Your task to perform on an android device: turn off notifications in google photos Image 0: 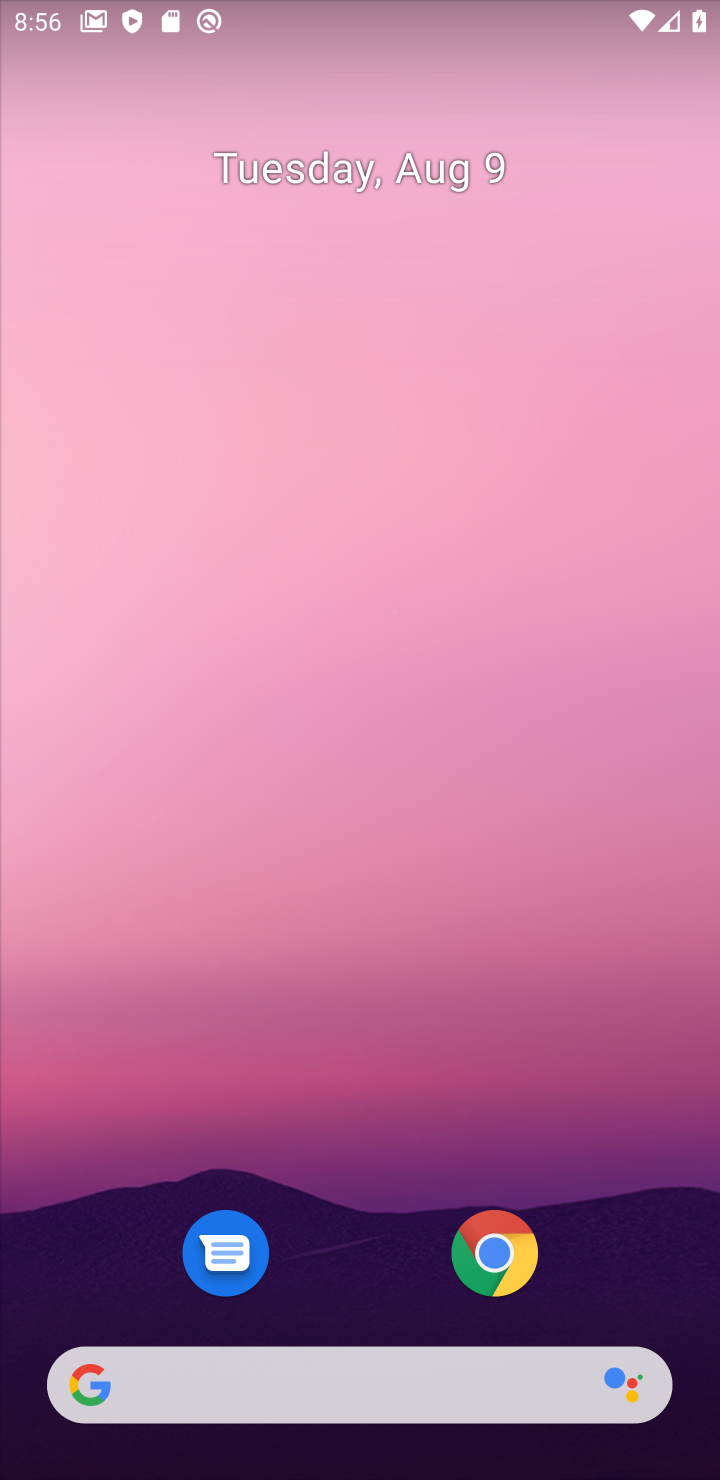
Step 0: drag from (362, 1234) to (557, 357)
Your task to perform on an android device: turn off notifications in google photos Image 1: 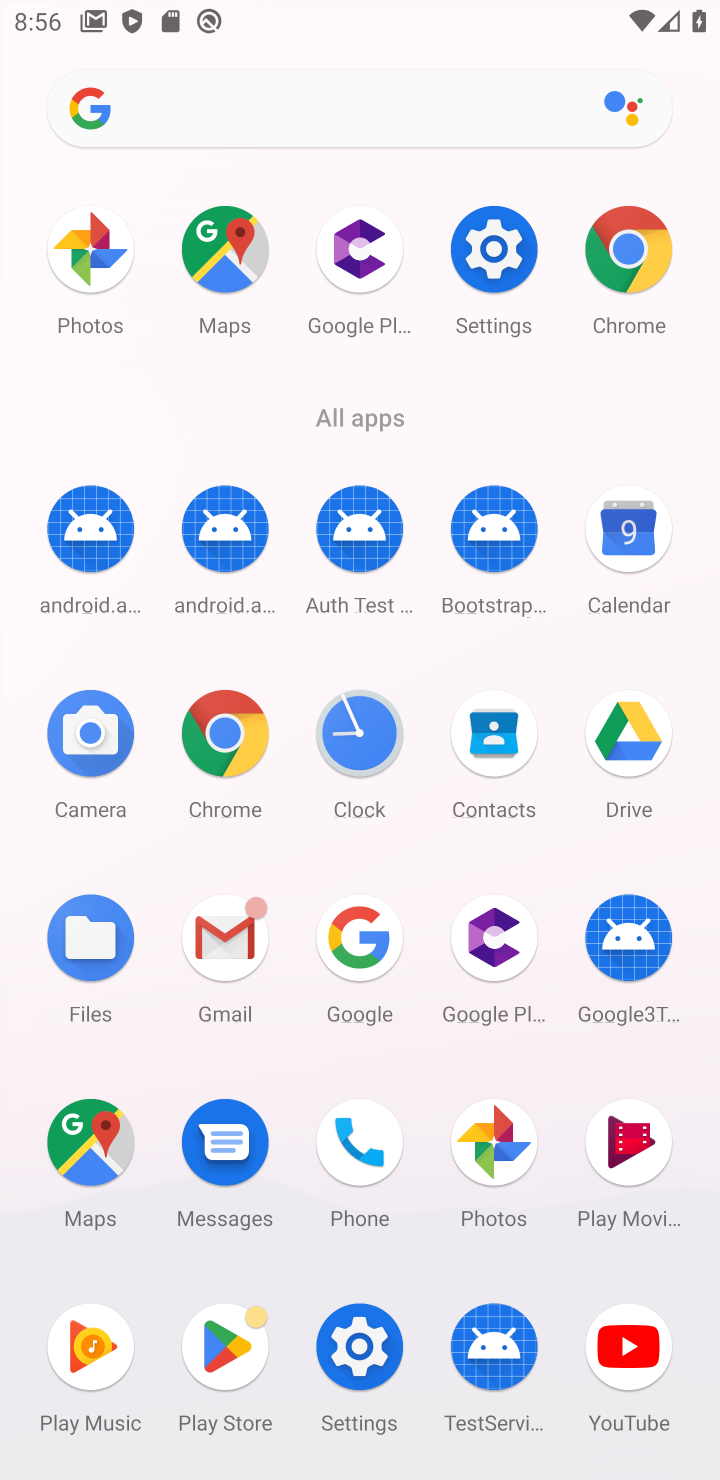
Step 1: click (505, 1139)
Your task to perform on an android device: turn off notifications in google photos Image 2: 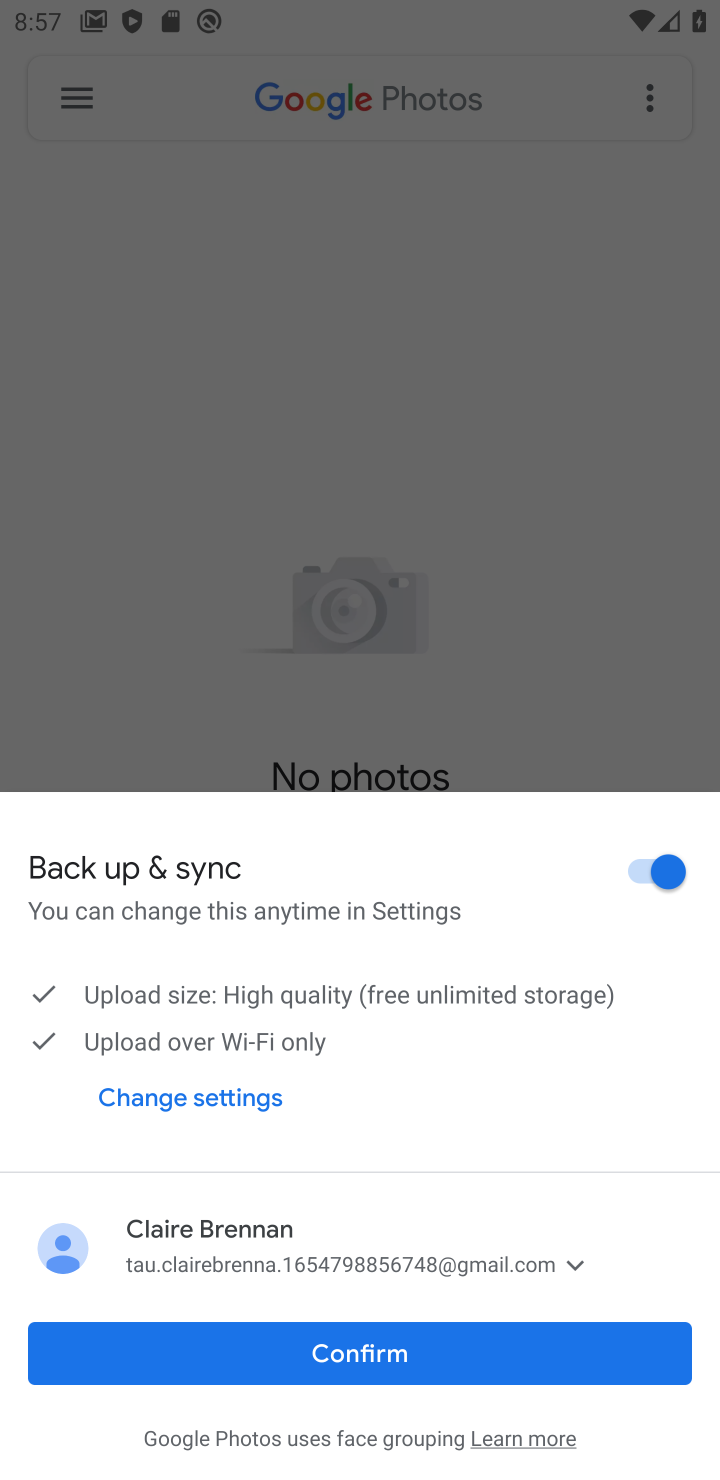
Step 2: click (401, 1347)
Your task to perform on an android device: turn off notifications in google photos Image 3: 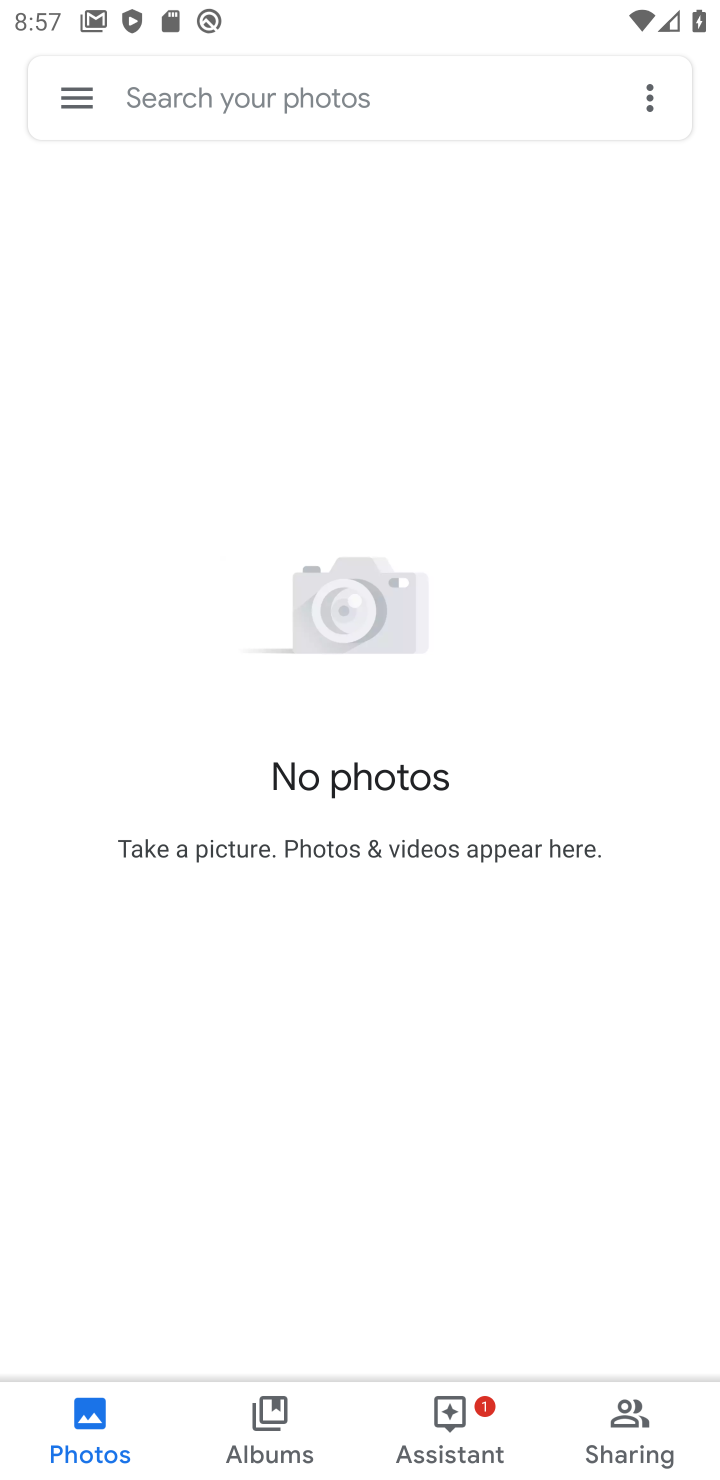
Step 3: click (76, 86)
Your task to perform on an android device: turn off notifications in google photos Image 4: 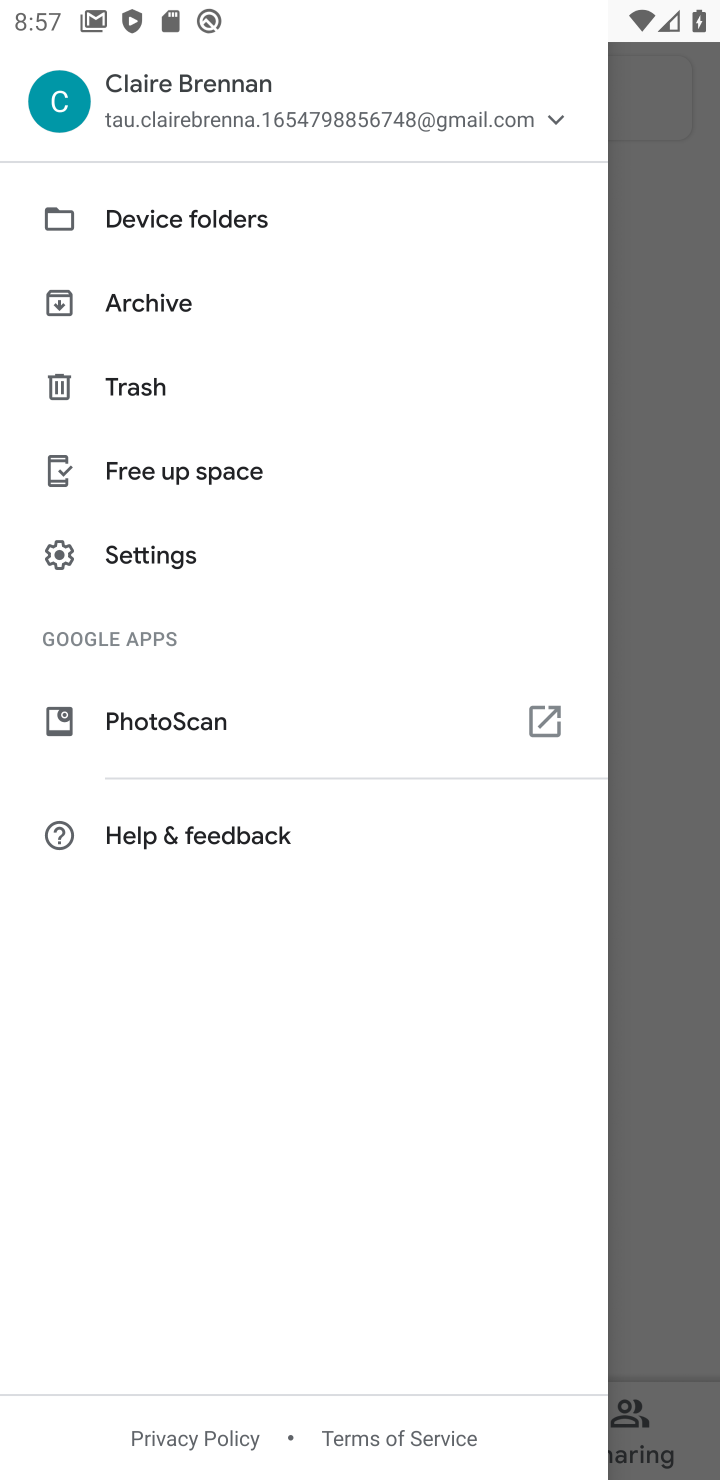
Step 4: click (142, 577)
Your task to perform on an android device: turn off notifications in google photos Image 5: 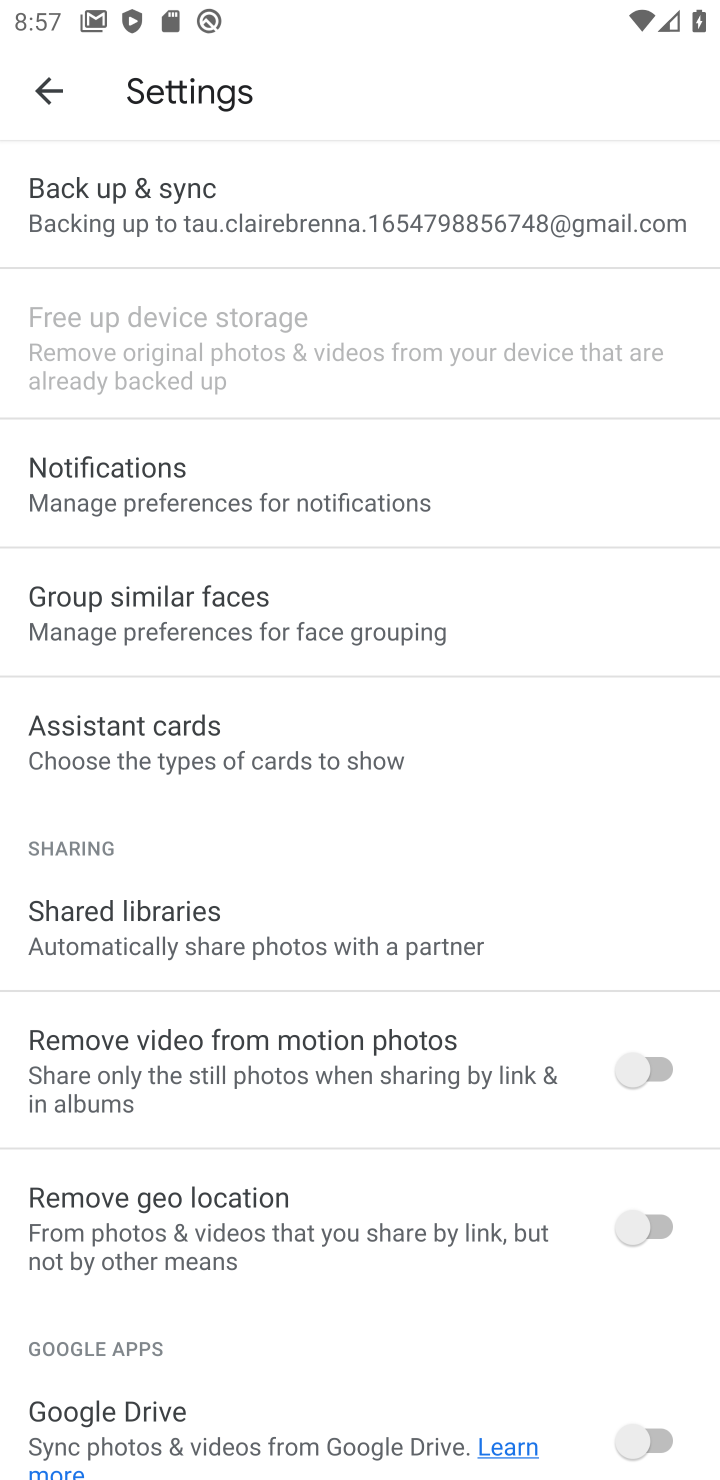
Step 5: click (242, 482)
Your task to perform on an android device: turn off notifications in google photos Image 6: 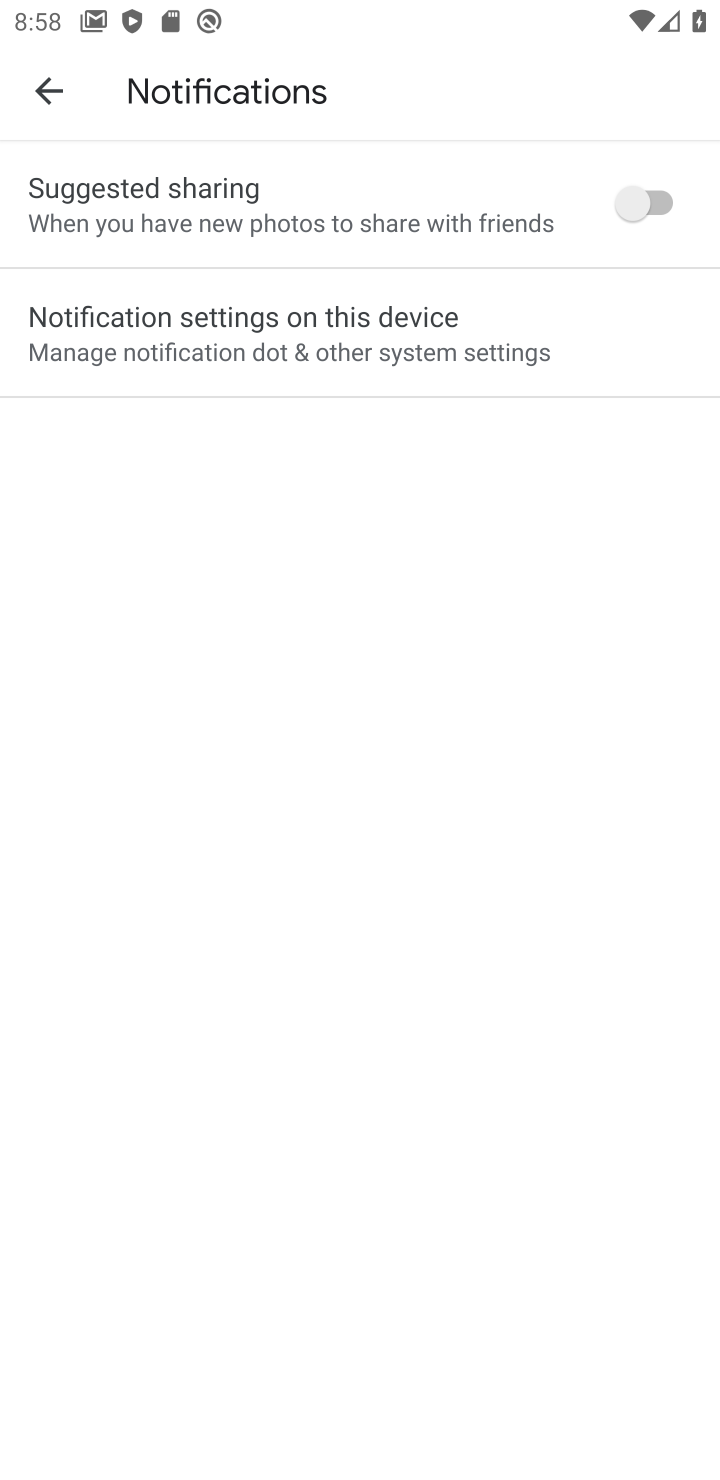
Step 6: click (392, 320)
Your task to perform on an android device: turn off notifications in google photos Image 7: 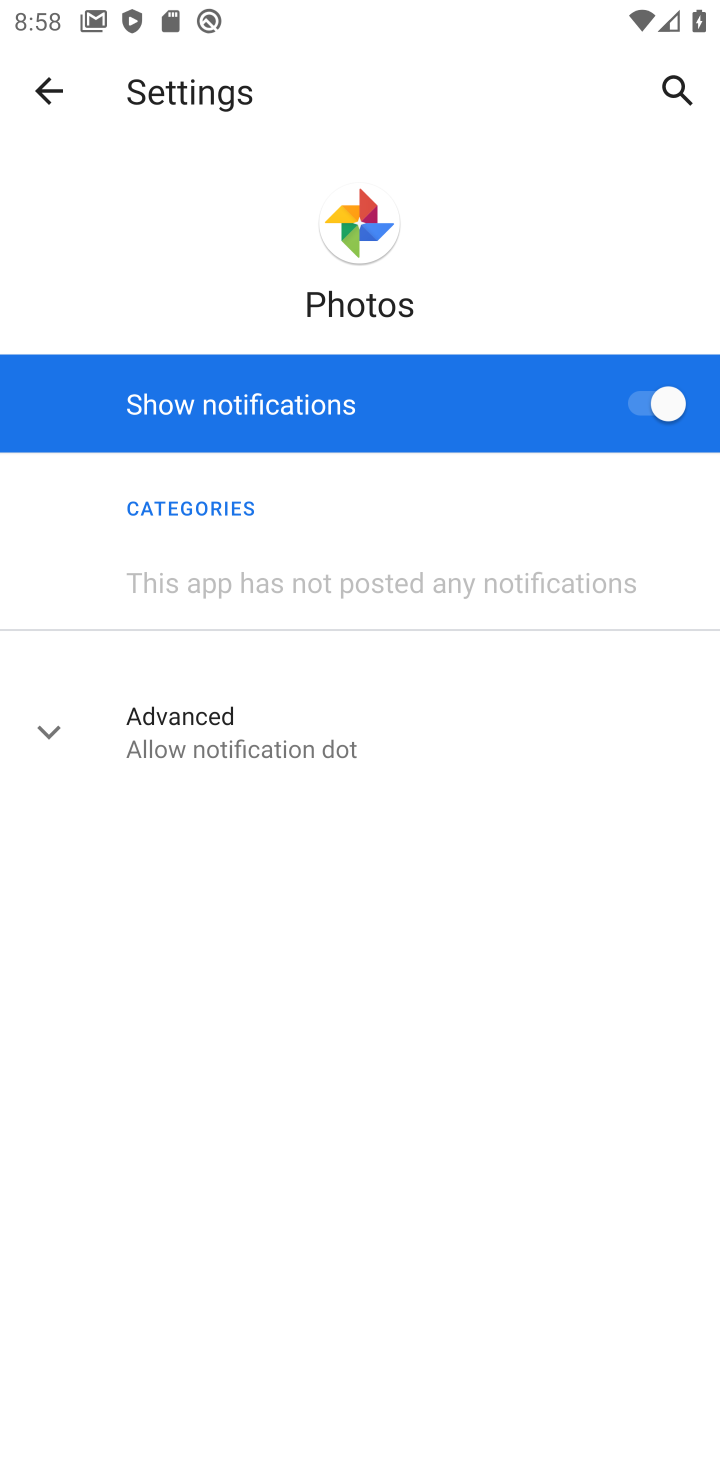
Step 7: click (632, 408)
Your task to perform on an android device: turn off notifications in google photos Image 8: 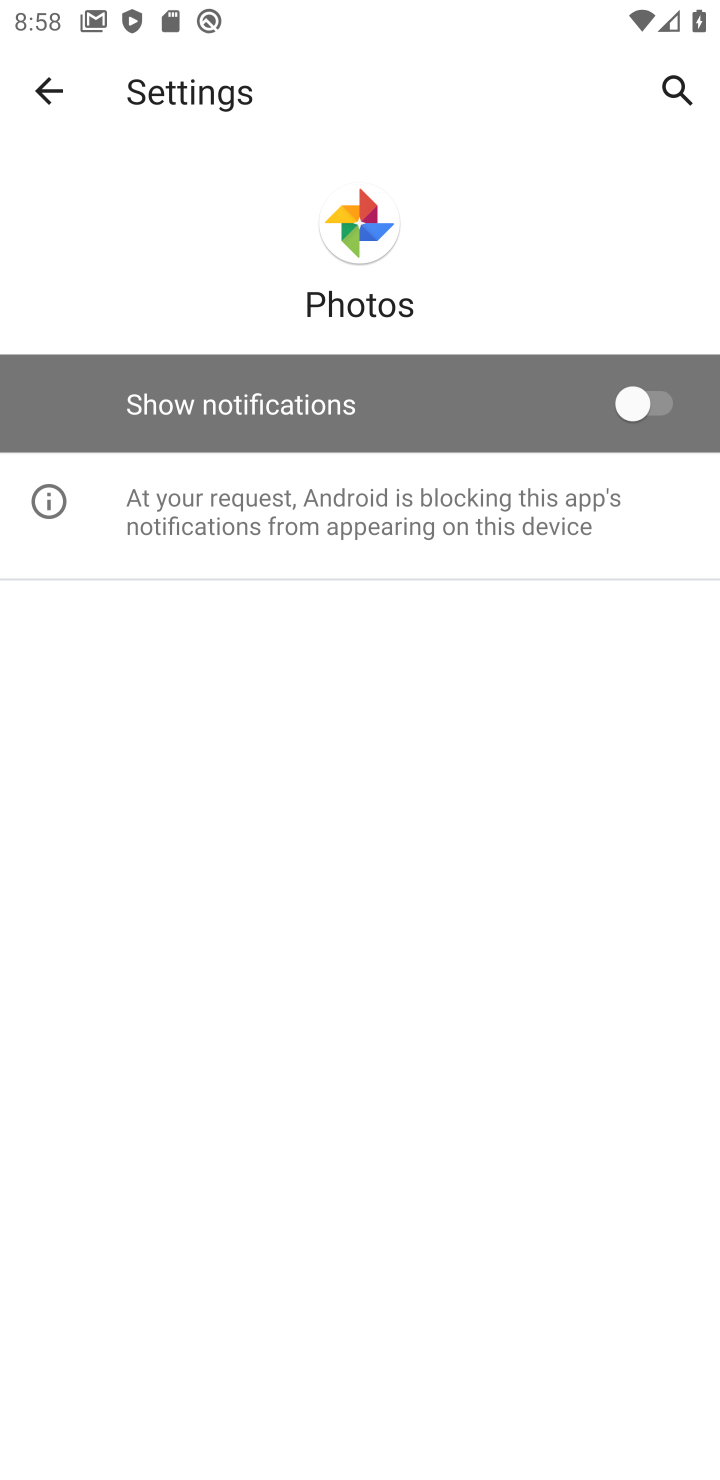
Step 8: task complete